Your task to perform on an android device: turn off sleep mode Image 0: 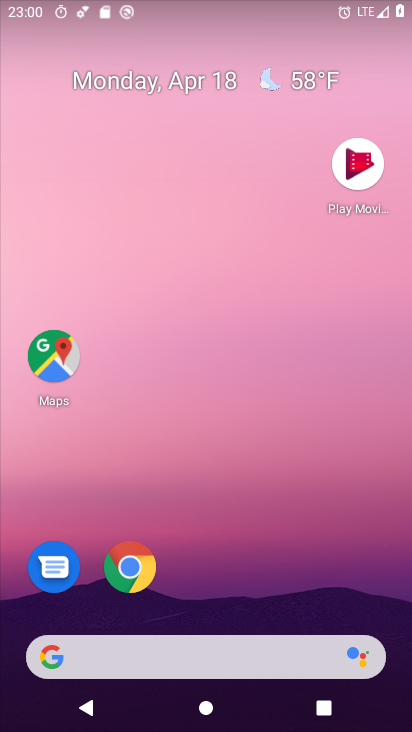
Step 0: drag from (187, 540) to (149, 5)
Your task to perform on an android device: turn off sleep mode Image 1: 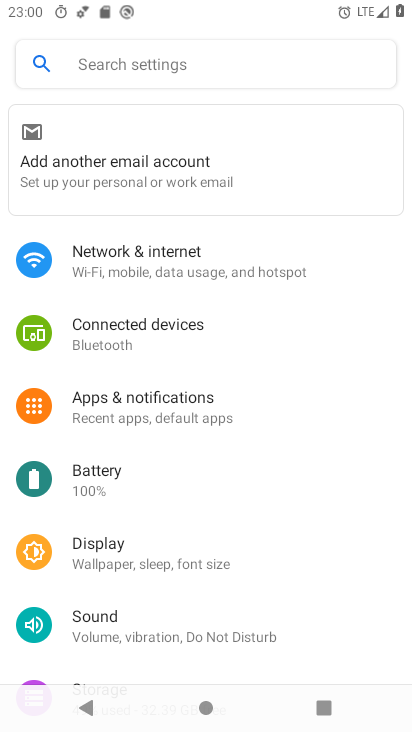
Step 1: drag from (221, 615) to (378, 224)
Your task to perform on an android device: turn off sleep mode Image 2: 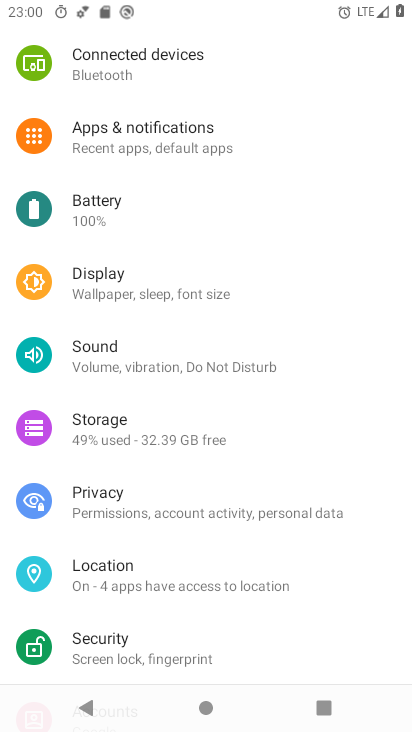
Step 2: drag from (226, 500) to (258, 265)
Your task to perform on an android device: turn off sleep mode Image 3: 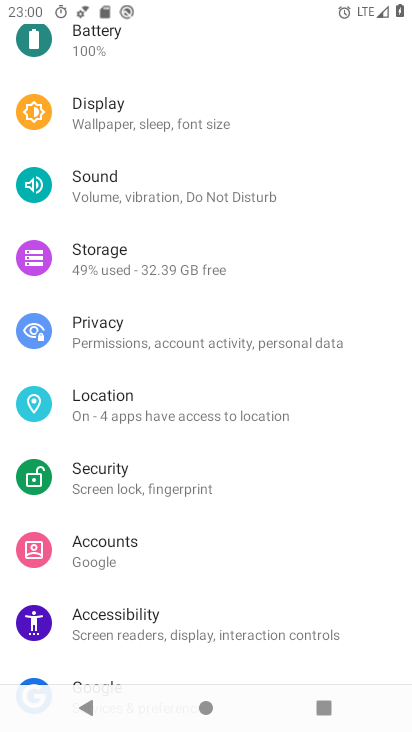
Step 3: click (173, 130)
Your task to perform on an android device: turn off sleep mode Image 4: 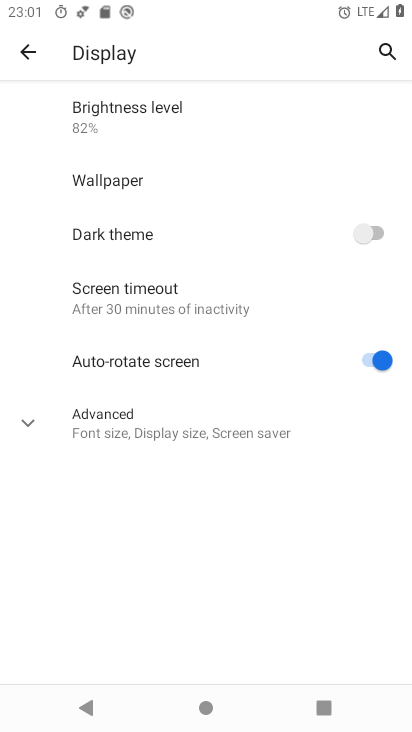
Step 4: drag from (232, 495) to (334, 187)
Your task to perform on an android device: turn off sleep mode Image 5: 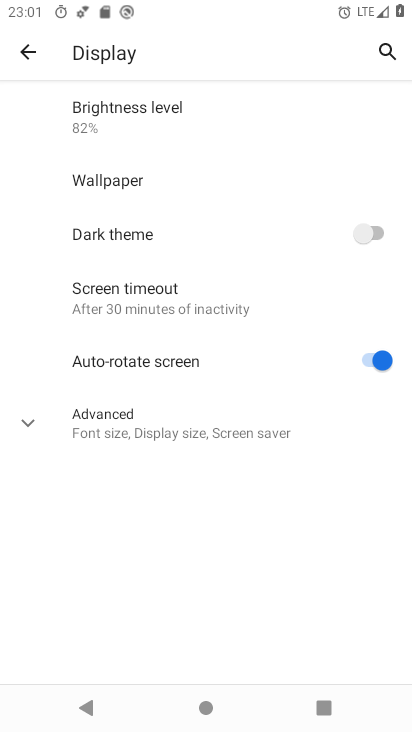
Step 5: click (157, 330)
Your task to perform on an android device: turn off sleep mode Image 6: 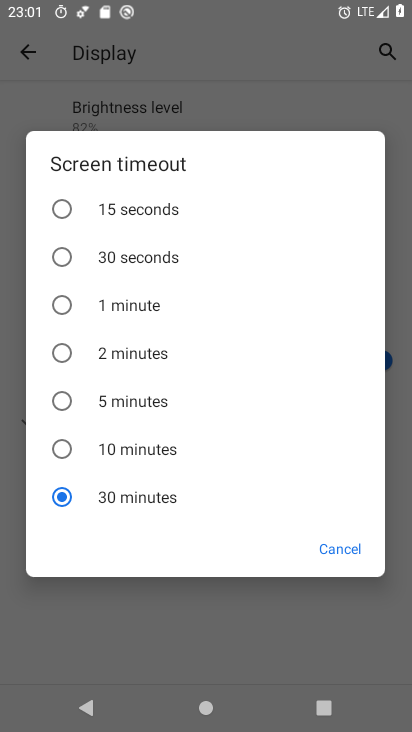
Step 6: drag from (118, 466) to (154, 170)
Your task to perform on an android device: turn off sleep mode Image 7: 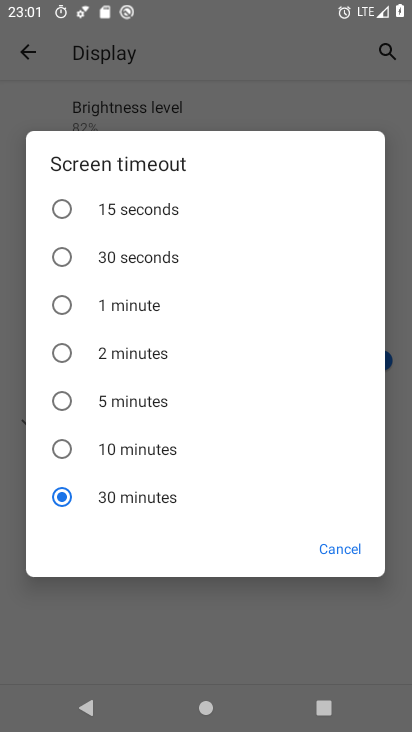
Step 7: click (131, 493)
Your task to perform on an android device: turn off sleep mode Image 8: 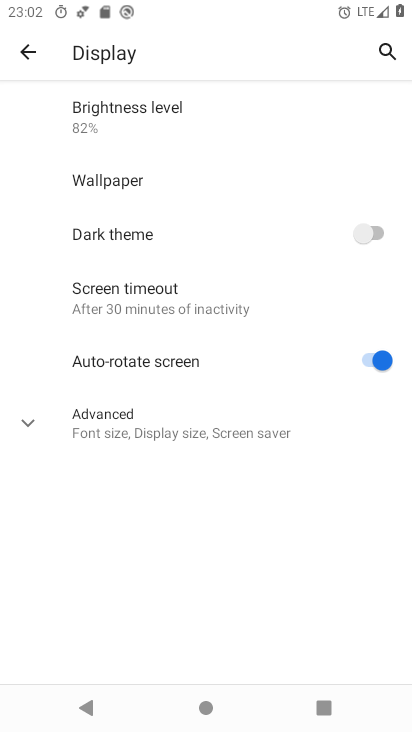
Step 8: drag from (255, 518) to (308, 125)
Your task to perform on an android device: turn off sleep mode Image 9: 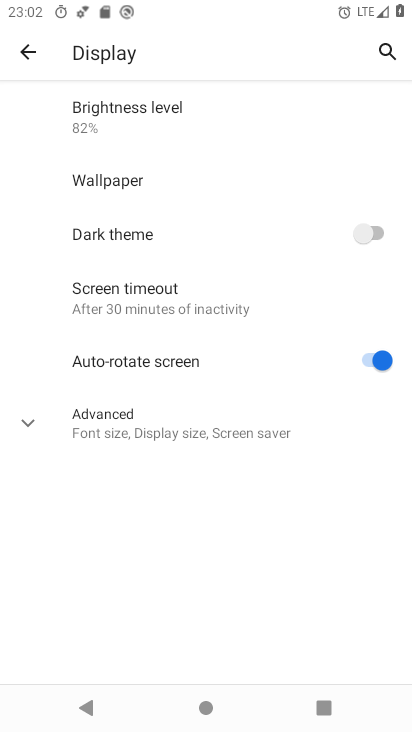
Step 9: drag from (256, 504) to (269, 329)
Your task to perform on an android device: turn off sleep mode Image 10: 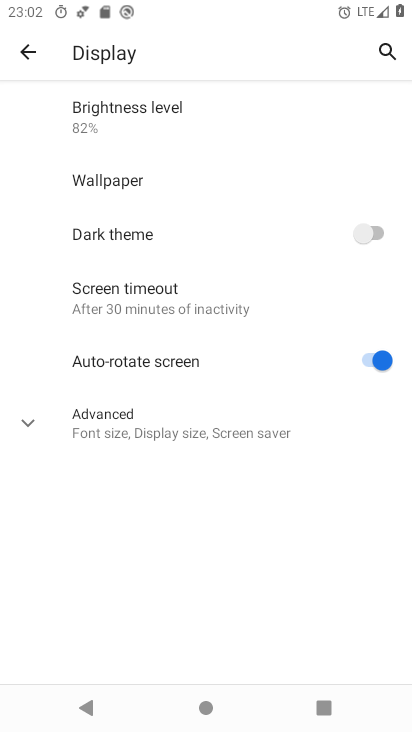
Step 10: click (237, 292)
Your task to perform on an android device: turn off sleep mode Image 11: 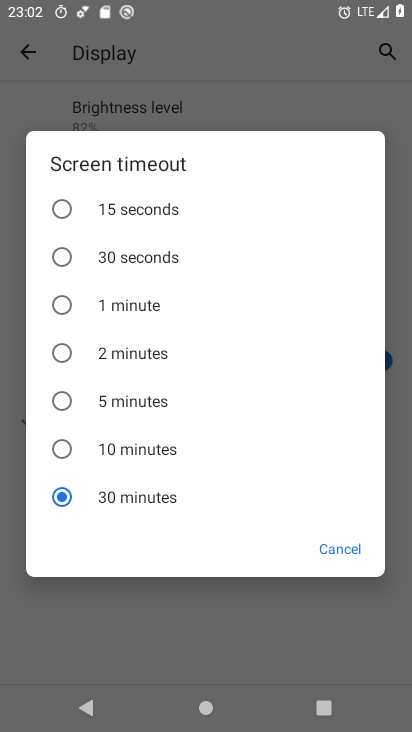
Step 11: task complete